Your task to perform on an android device: Open network settings Image 0: 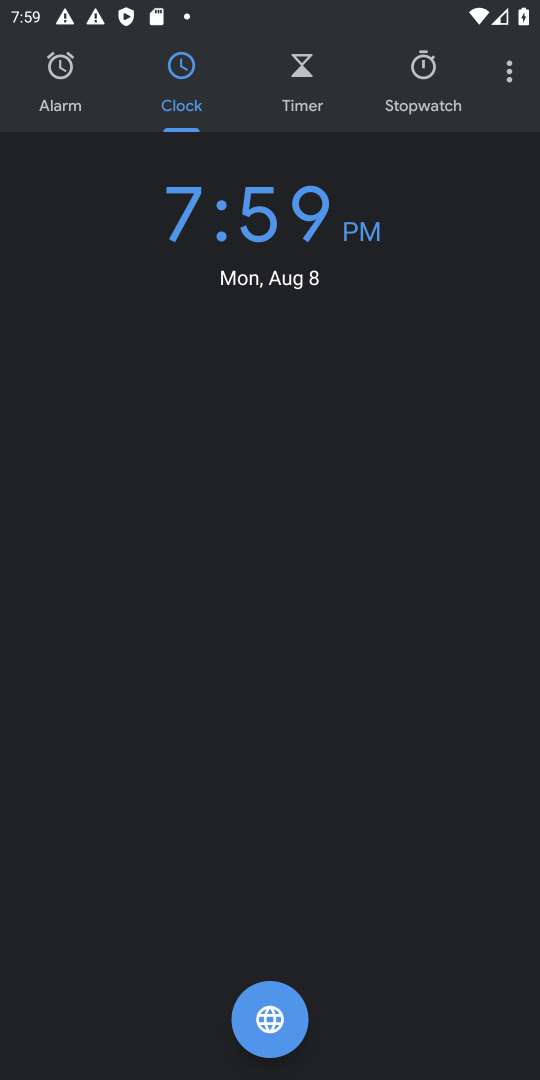
Step 0: press home button
Your task to perform on an android device: Open network settings Image 1: 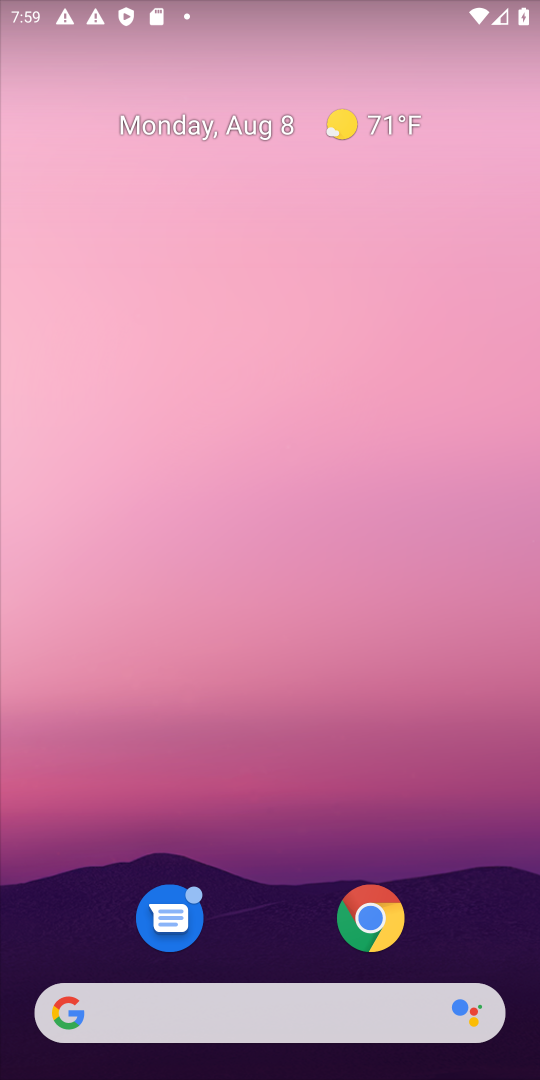
Step 1: drag from (520, 1034) to (392, 464)
Your task to perform on an android device: Open network settings Image 2: 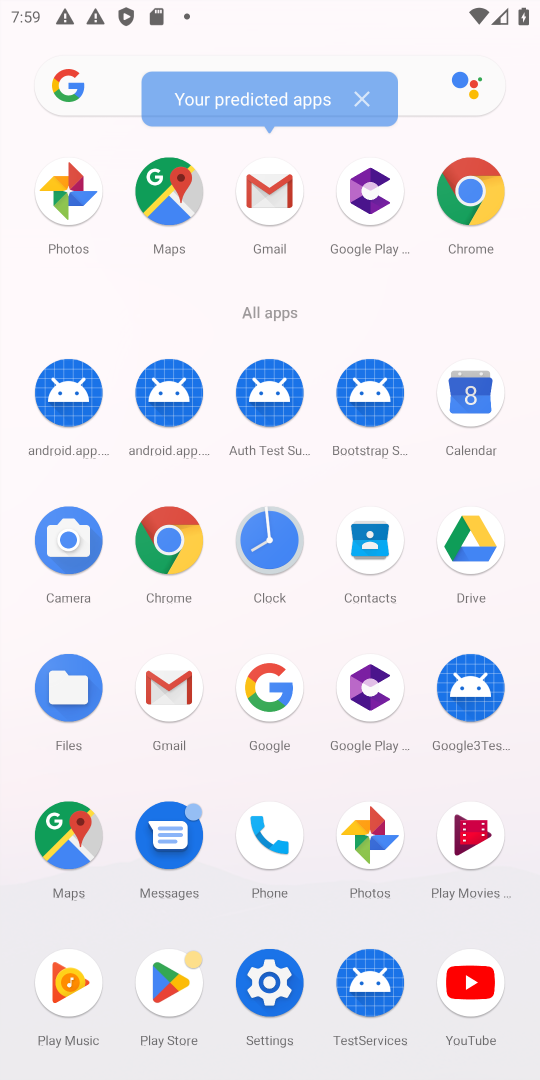
Step 2: click (392, 464)
Your task to perform on an android device: Open network settings Image 3: 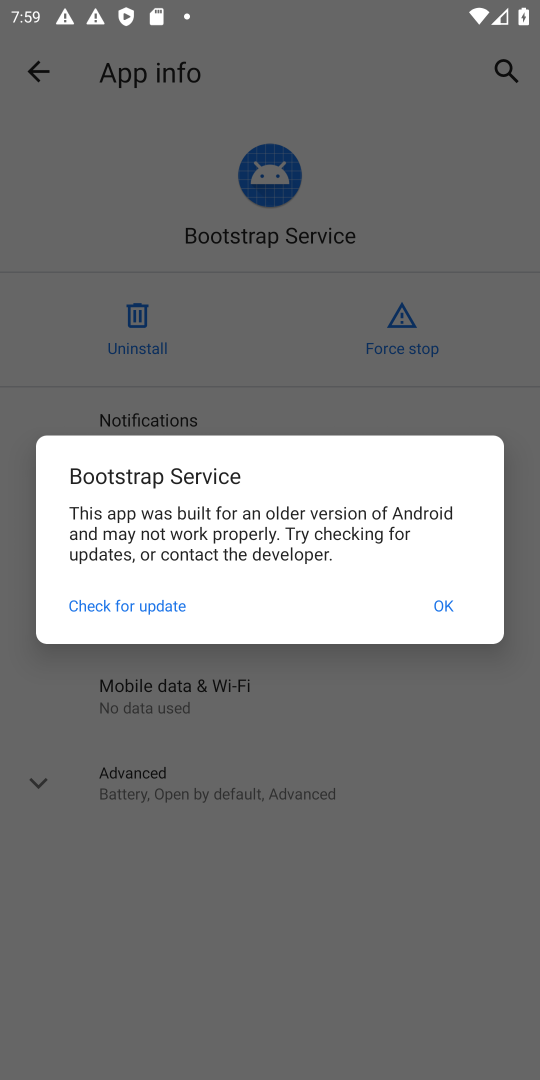
Step 3: press back button
Your task to perform on an android device: Open network settings Image 4: 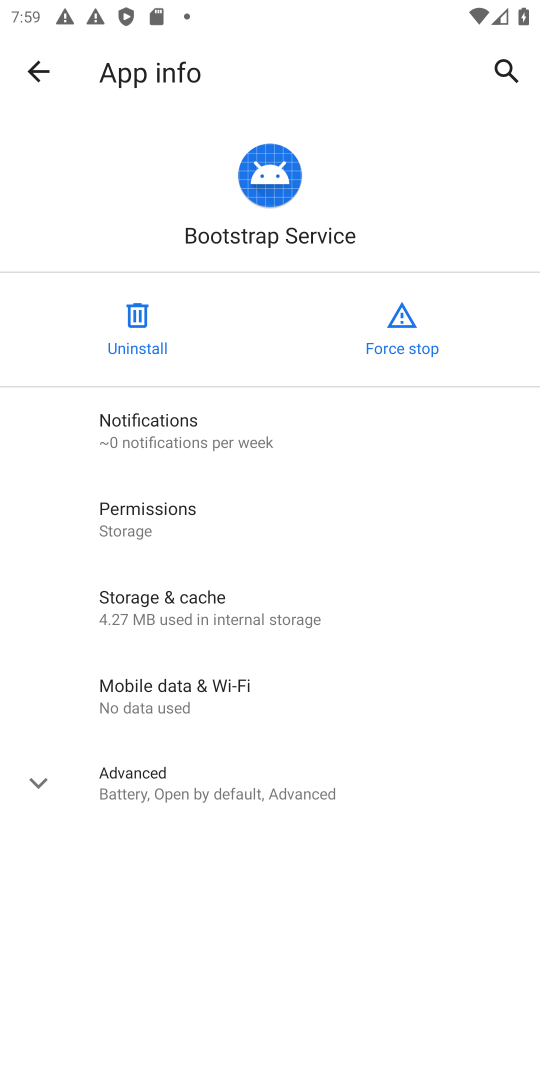
Step 4: press back button
Your task to perform on an android device: Open network settings Image 5: 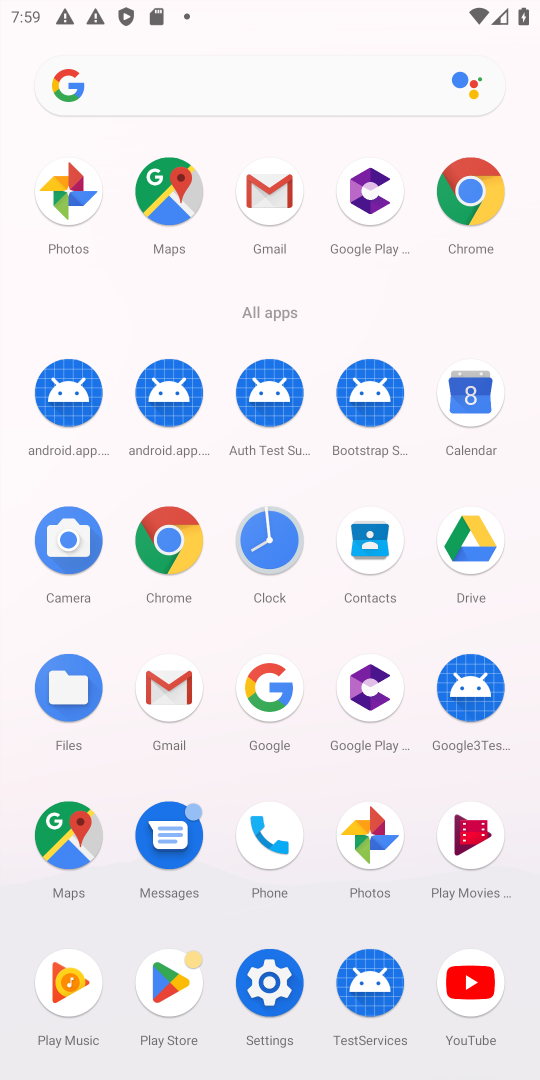
Step 5: click (269, 980)
Your task to perform on an android device: Open network settings Image 6: 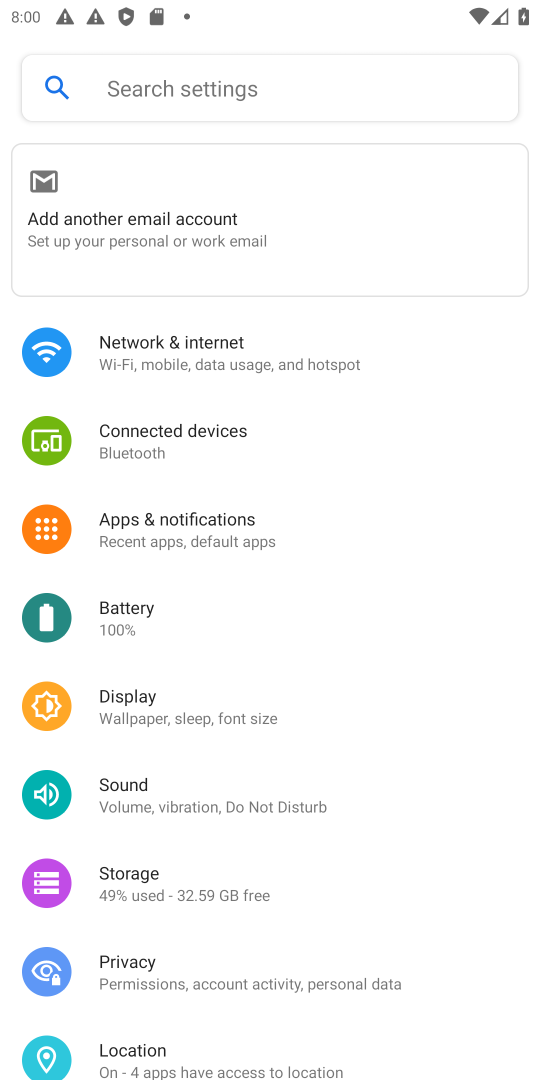
Step 6: click (136, 352)
Your task to perform on an android device: Open network settings Image 7: 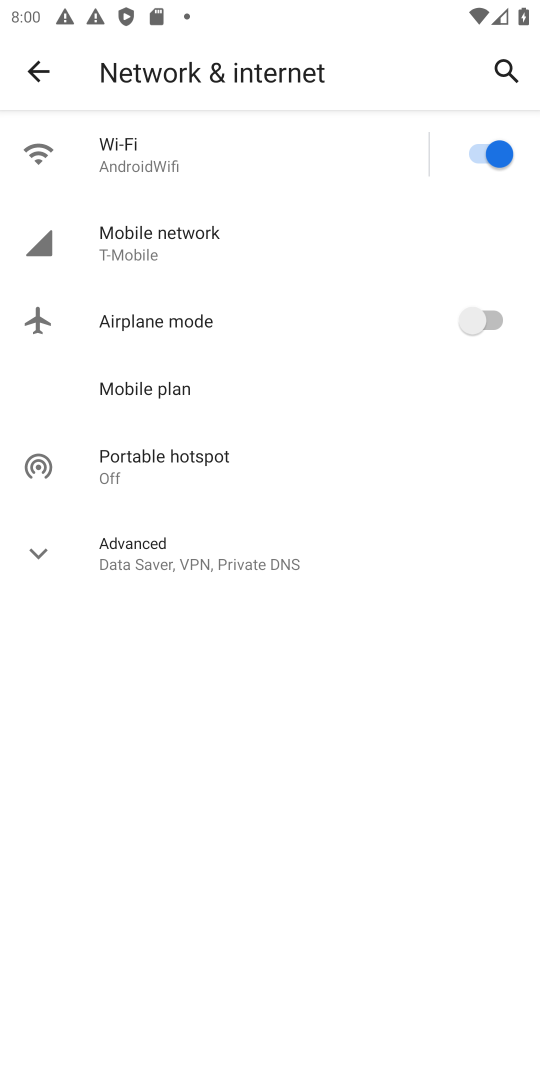
Step 7: click (197, 229)
Your task to perform on an android device: Open network settings Image 8: 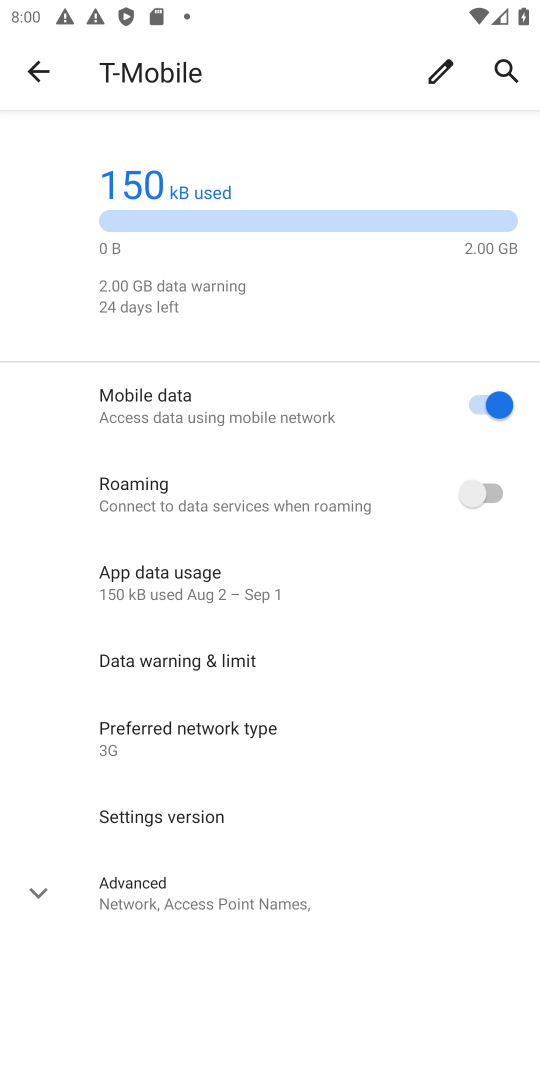
Step 8: click (47, 887)
Your task to perform on an android device: Open network settings Image 9: 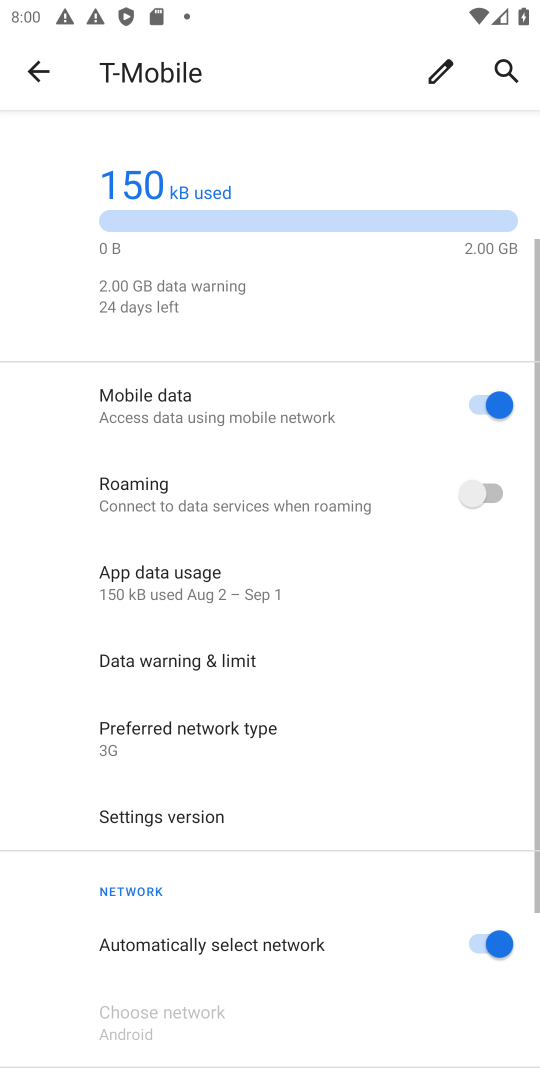
Step 9: task complete